Your task to perform on an android device: see tabs open on other devices in the chrome app Image 0: 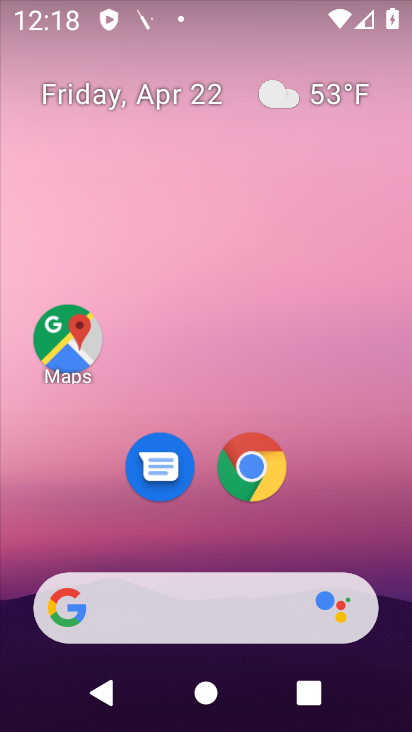
Step 0: click (249, 456)
Your task to perform on an android device: see tabs open on other devices in the chrome app Image 1: 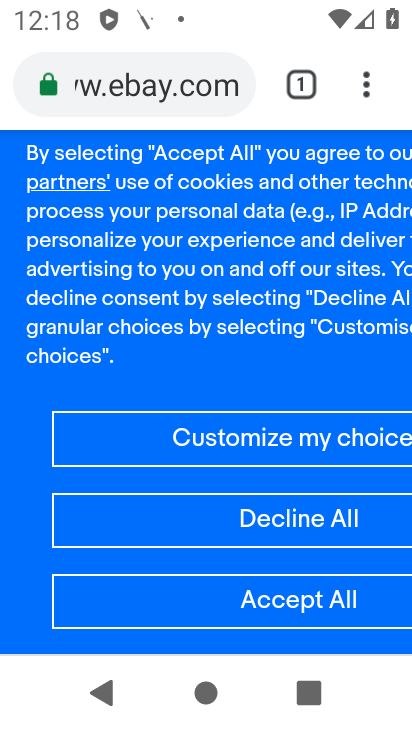
Step 1: click (365, 85)
Your task to perform on an android device: see tabs open on other devices in the chrome app Image 2: 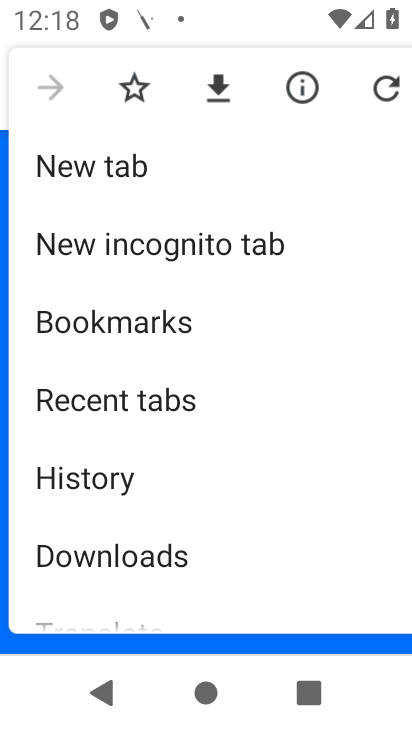
Step 2: click (107, 401)
Your task to perform on an android device: see tabs open on other devices in the chrome app Image 3: 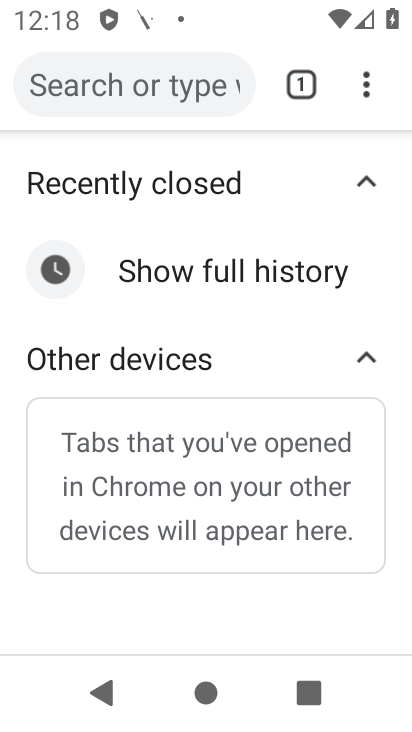
Step 3: task complete